Your task to perform on an android device: set default search engine in the chrome app Image 0: 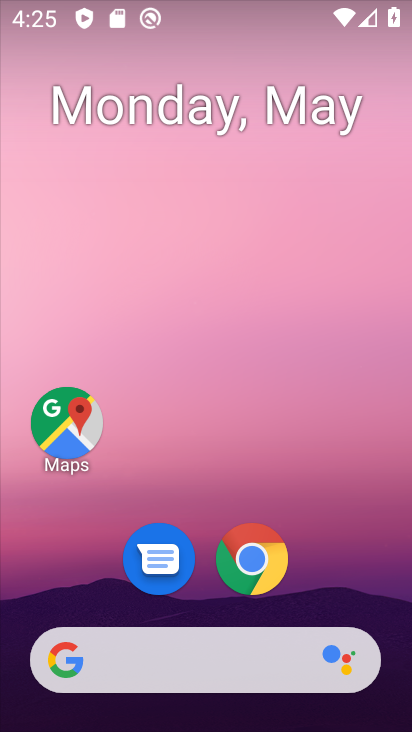
Step 0: drag from (289, 632) to (268, 28)
Your task to perform on an android device: set default search engine in the chrome app Image 1: 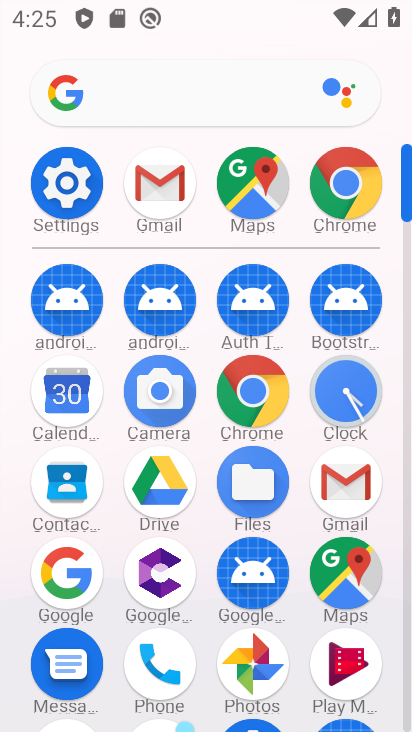
Step 1: click (255, 390)
Your task to perform on an android device: set default search engine in the chrome app Image 2: 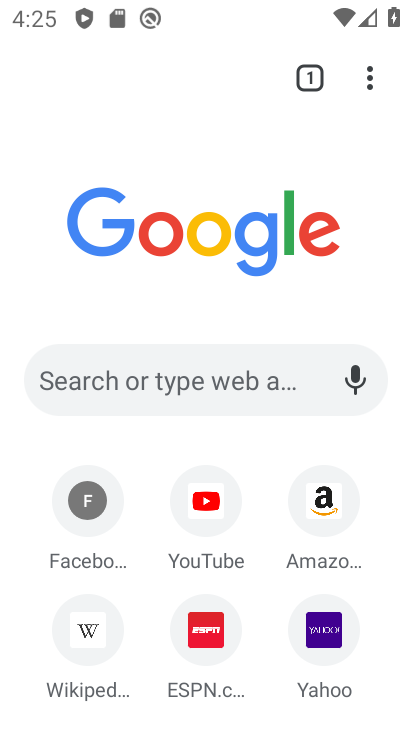
Step 2: drag from (368, 76) to (110, 627)
Your task to perform on an android device: set default search engine in the chrome app Image 3: 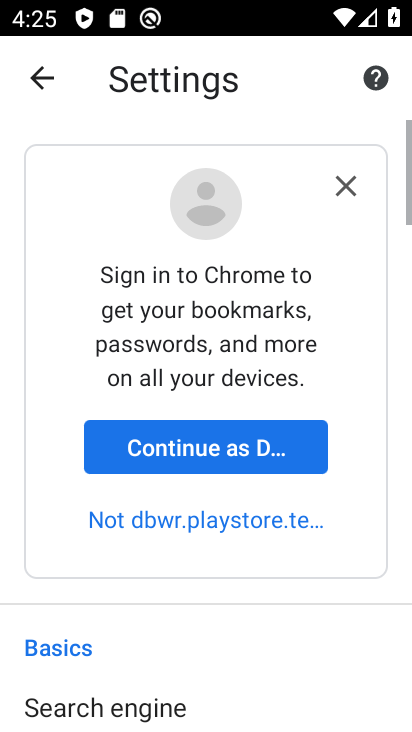
Step 3: click (135, 718)
Your task to perform on an android device: set default search engine in the chrome app Image 4: 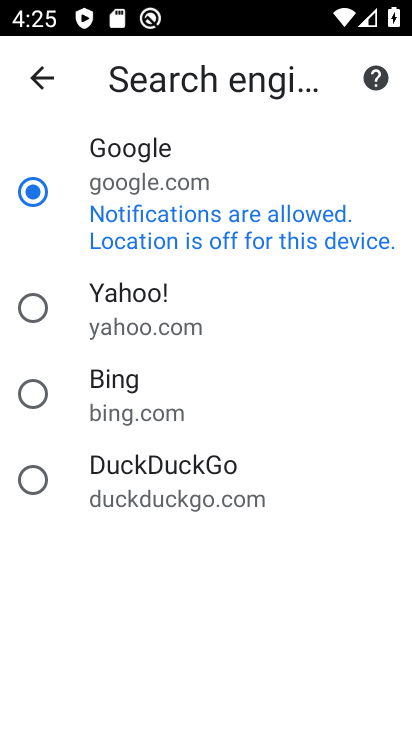
Step 4: task complete